Your task to perform on an android device: Open the phone app and click the voicemail tab. Image 0: 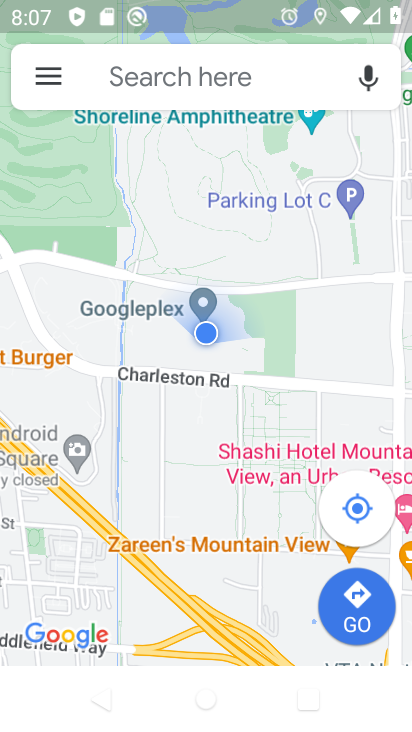
Step 0: press back button
Your task to perform on an android device: Open the phone app and click the voicemail tab. Image 1: 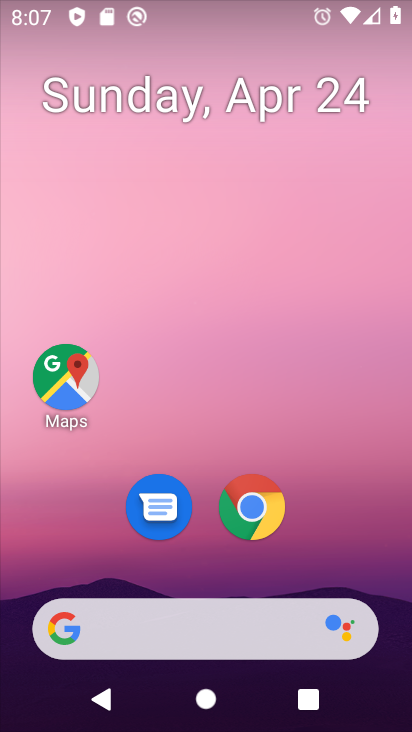
Step 1: drag from (372, 544) to (302, 124)
Your task to perform on an android device: Open the phone app and click the voicemail tab. Image 2: 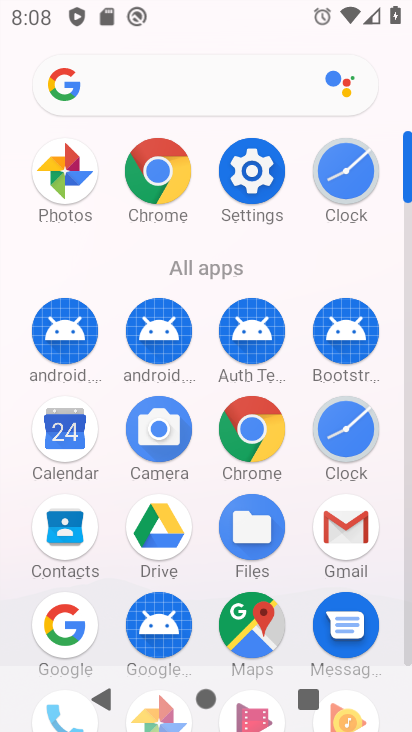
Step 2: click (410, 655)
Your task to perform on an android device: Open the phone app and click the voicemail tab. Image 3: 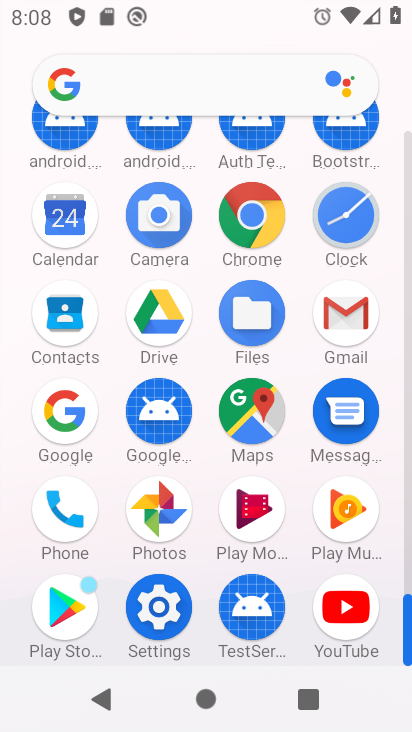
Step 3: click (46, 498)
Your task to perform on an android device: Open the phone app and click the voicemail tab. Image 4: 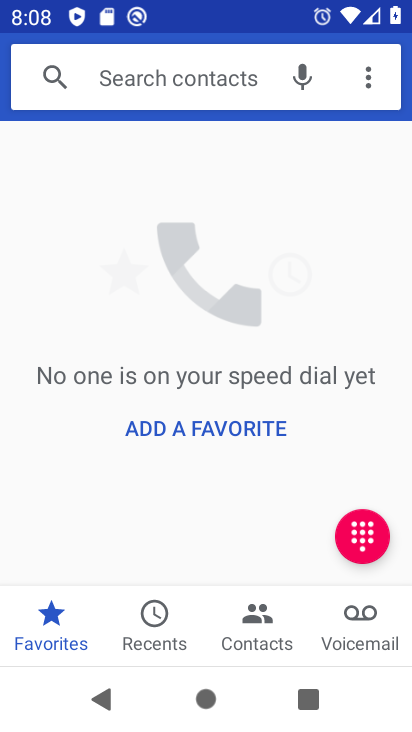
Step 4: click (378, 637)
Your task to perform on an android device: Open the phone app and click the voicemail tab. Image 5: 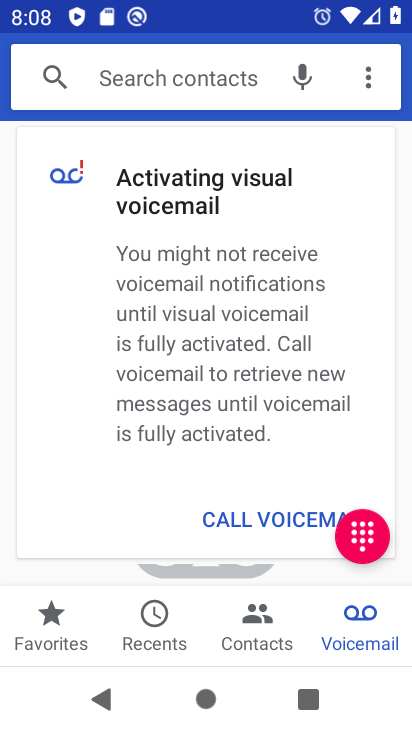
Step 5: task complete